Your task to perform on an android device: see tabs open on other devices in the chrome app Image 0: 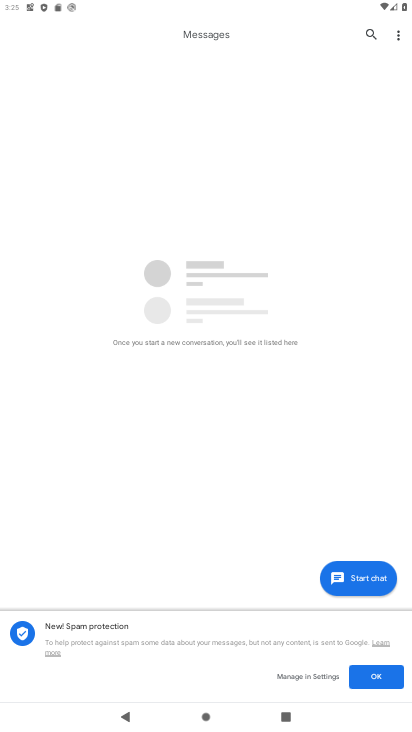
Step 0: press home button
Your task to perform on an android device: see tabs open on other devices in the chrome app Image 1: 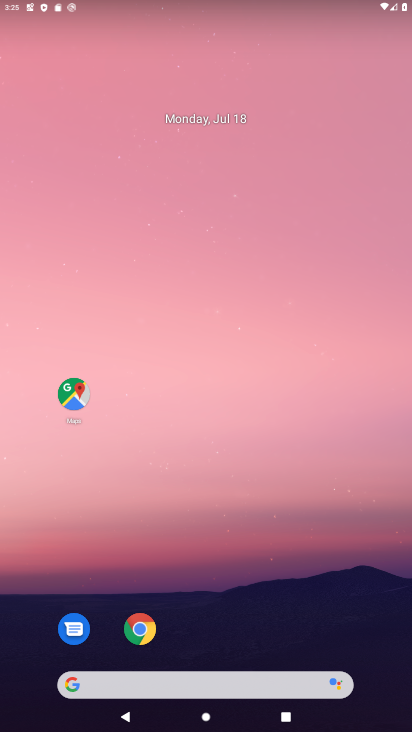
Step 1: click (129, 637)
Your task to perform on an android device: see tabs open on other devices in the chrome app Image 2: 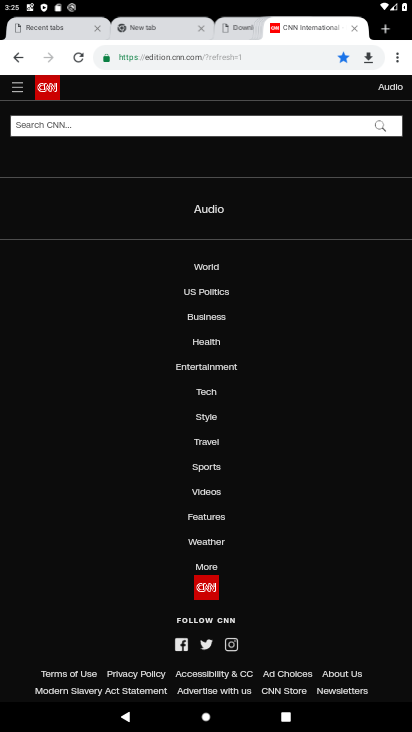
Step 2: click (397, 59)
Your task to perform on an android device: see tabs open on other devices in the chrome app Image 3: 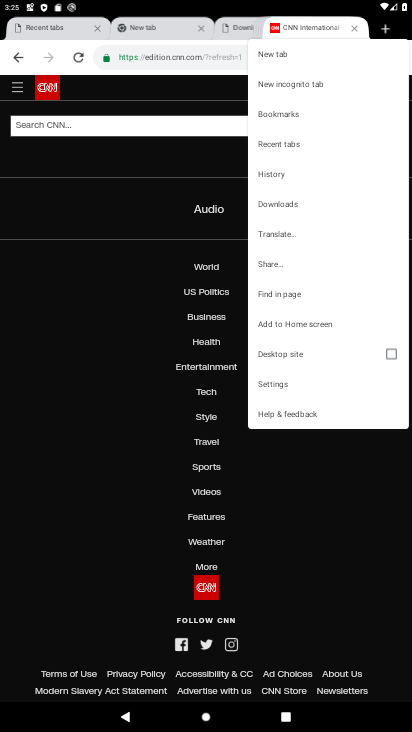
Step 3: click (289, 143)
Your task to perform on an android device: see tabs open on other devices in the chrome app Image 4: 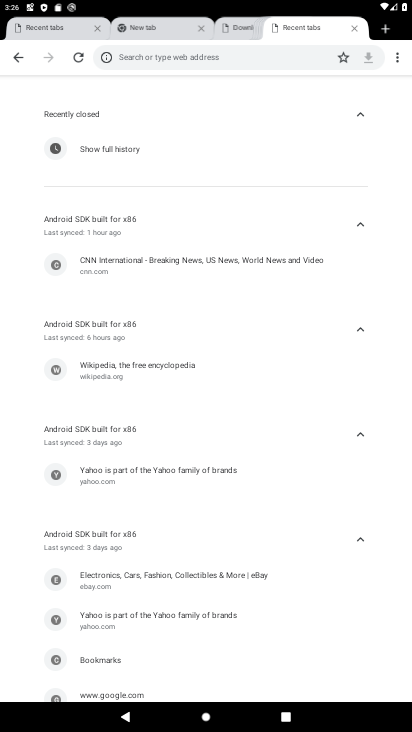
Step 4: task complete